Your task to perform on an android device: change keyboard looks Image 0: 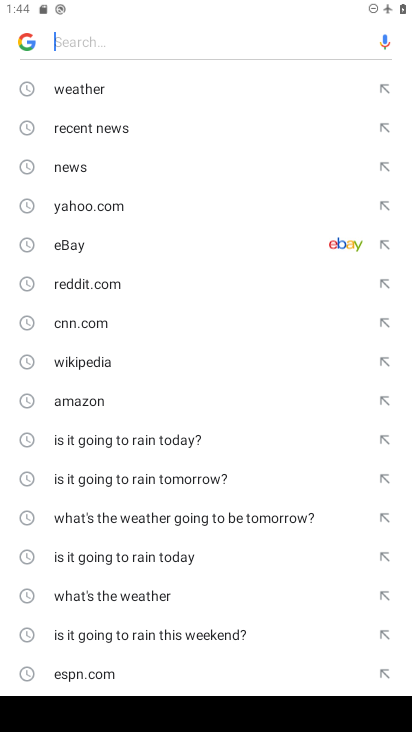
Step 0: press home button
Your task to perform on an android device: change keyboard looks Image 1: 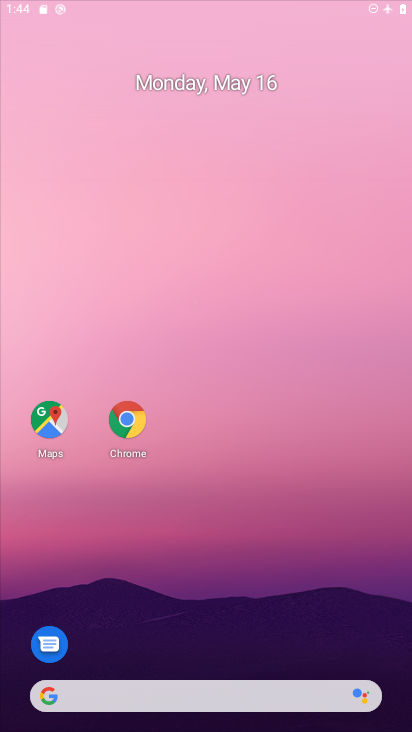
Step 1: drag from (176, 645) to (252, 408)
Your task to perform on an android device: change keyboard looks Image 2: 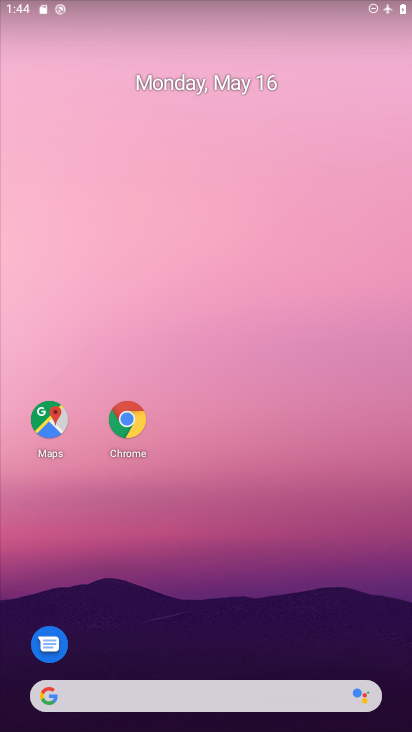
Step 2: drag from (166, 604) to (270, 12)
Your task to perform on an android device: change keyboard looks Image 3: 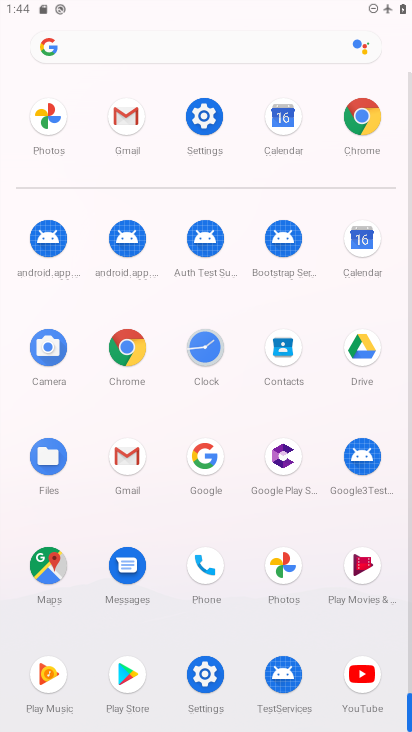
Step 3: click (194, 113)
Your task to perform on an android device: change keyboard looks Image 4: 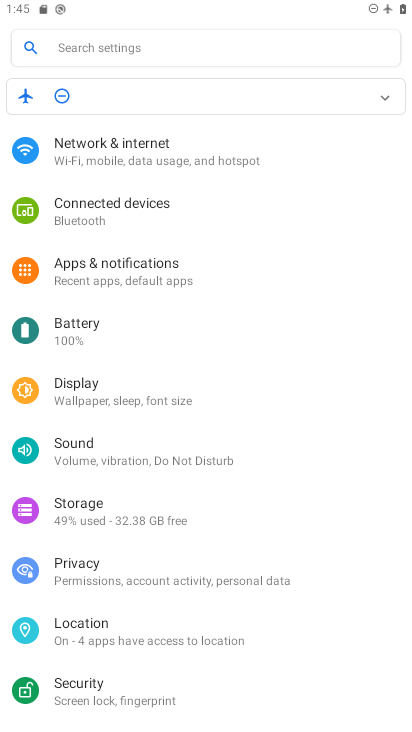
Step 4: drag from (103, 680) to (266, 37)
Your task to perform on an android device: change keyboard looks Image 5: 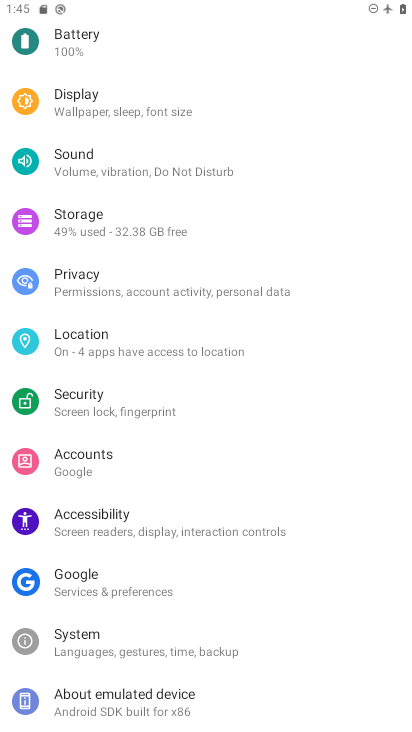
Step 5: drag from (245, 594) to (243, 319)
Your task to perform on an android device: change keyboard looks Image 6: 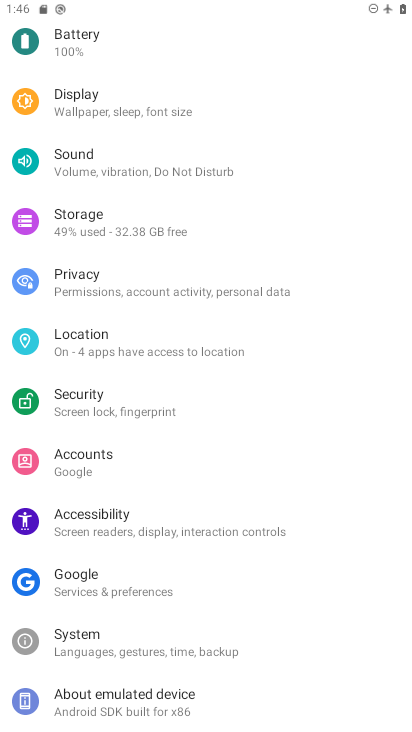
Step 6: drag from (263, 692) to (268, 417)
Your task to perform on an android device: change keyboard looks Image 7: 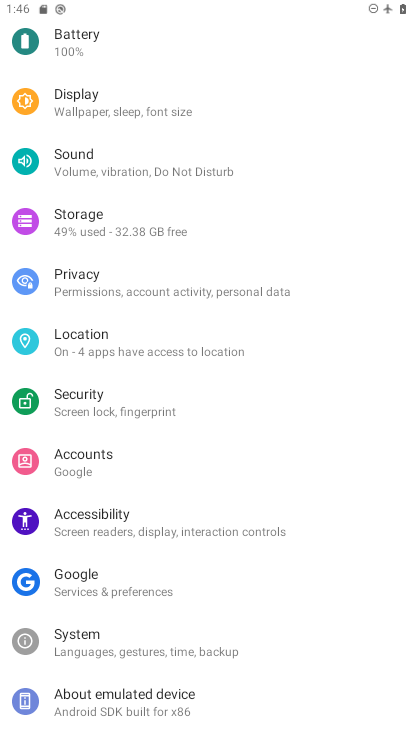
Step 7: click (102, 653)
Your task to perform on an android device: change keyboard looks Image 8: 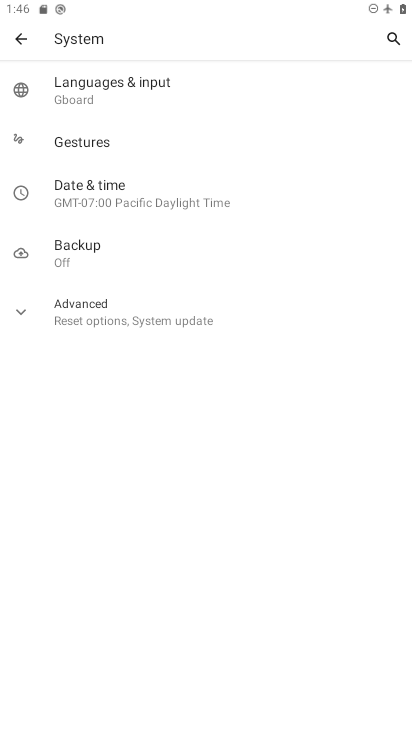
Step 8: click (200, 90)
Your task to perform on an android device: change keyboard looks Image 9: 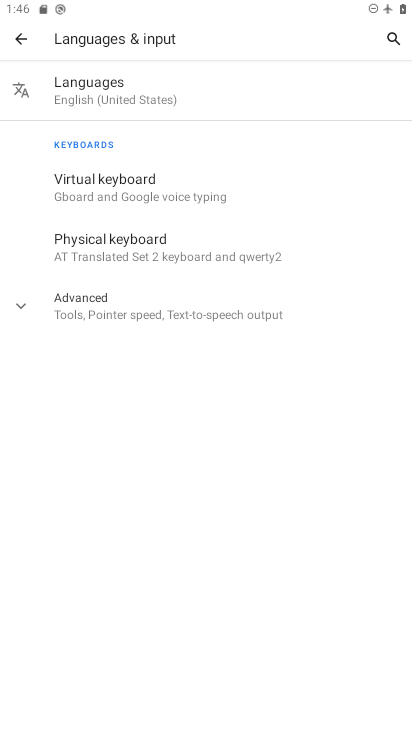
Step 9: click (145, 167)
Your task to perform on an android device: change keyboard looks Image 10: 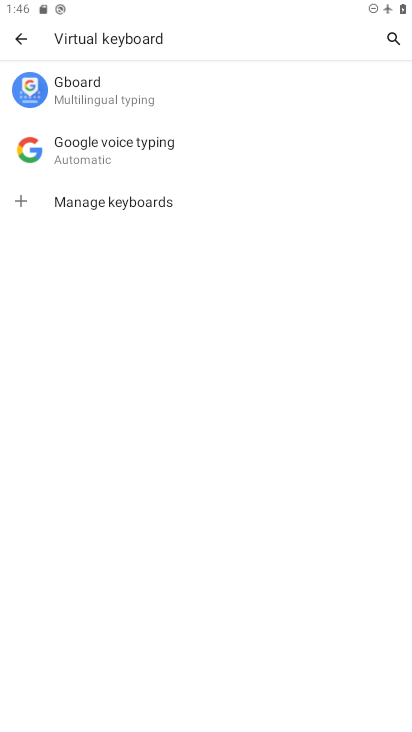
Step 10: click (241, 91)
Your task to perform on an android device: change keyboard looks Image 11: 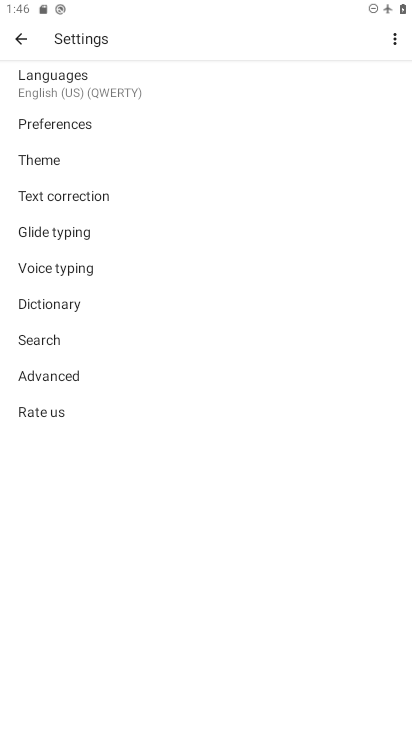
Step 11: click (89, 169)
Your task to perform on an android device: change keyboard looks Image 12: 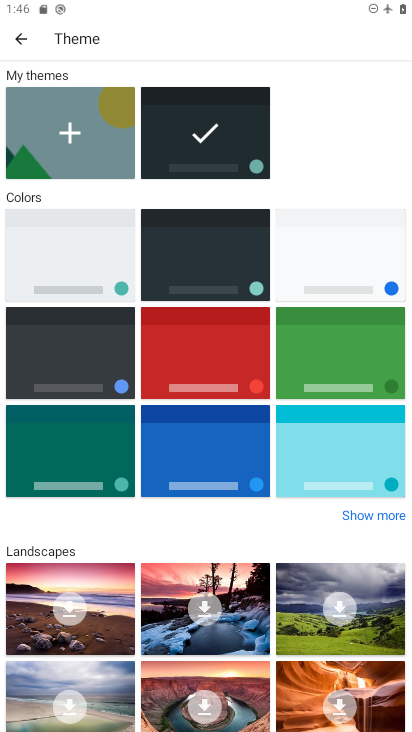
Step 12: click (221, 256)
Your task to perform on an android device: change keyboard looks Image 13: 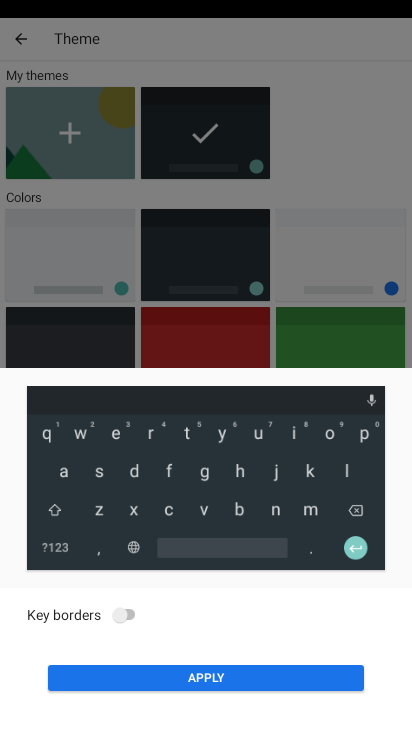
Step 13: click (219, 673)
Your task to perform on an android device: change keyboard looks Image 14: 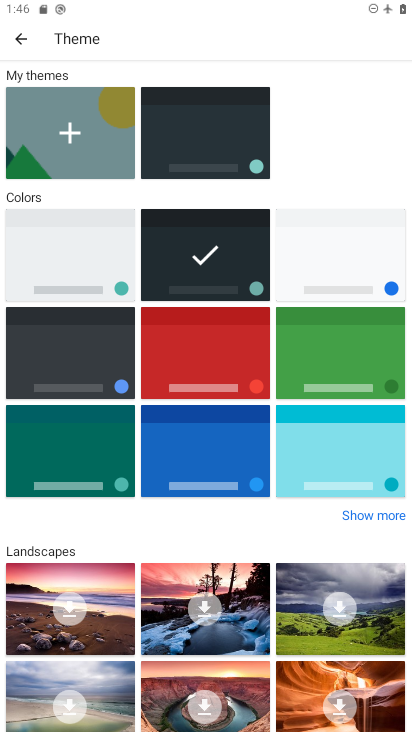
Step 14: task complete